Your task to perform on an android device: Show me popular videos on Youtube Image 0: 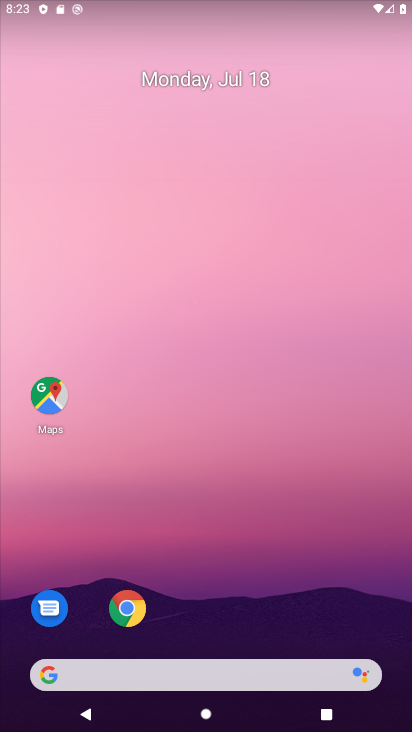
Step 0: drag from (208, 628) to (205, 144)
Your task to perform on an android device: Show me popular videos on Youtube Image 1: 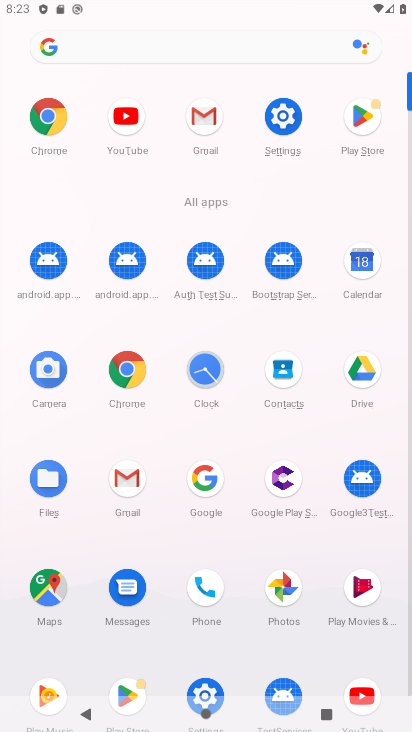
Step 1: click (367, 683)
Your task to perform on an android device: Show me popular videos on Youtube Image 2: 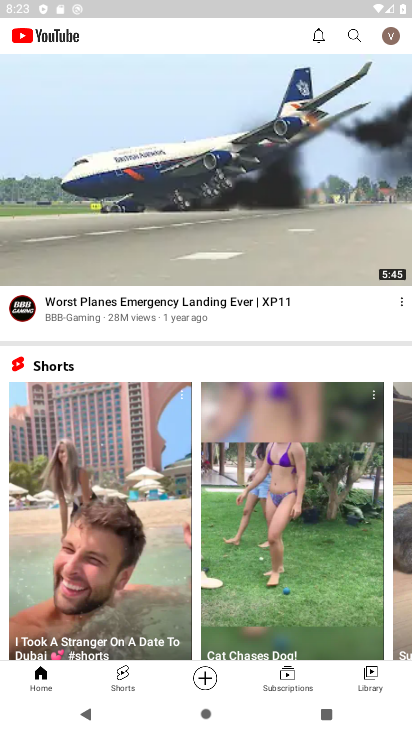
Step 2: drag from (63, 157) to (69, 562)
Your task to perform on an android device: Show me popular videos on Youtube Image 3: 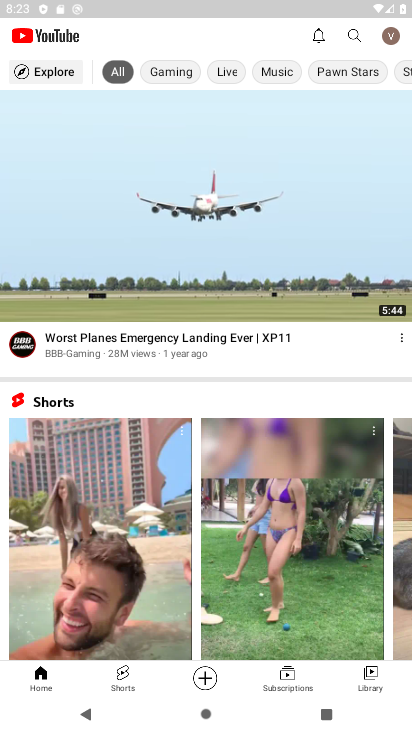
Step 3: click (43, 69)
Your task to perform on an android device: Show me popular videos on Youtube Image 4: 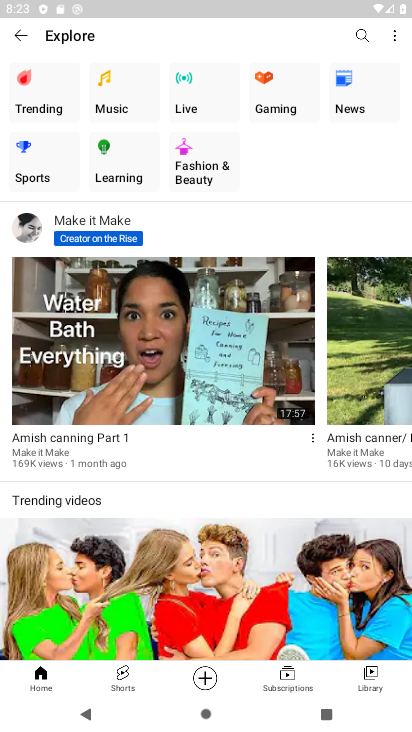
Step 4: click (46, 87)
Your task to perform on an android device: Show me popular videos on Youtube Image 5: 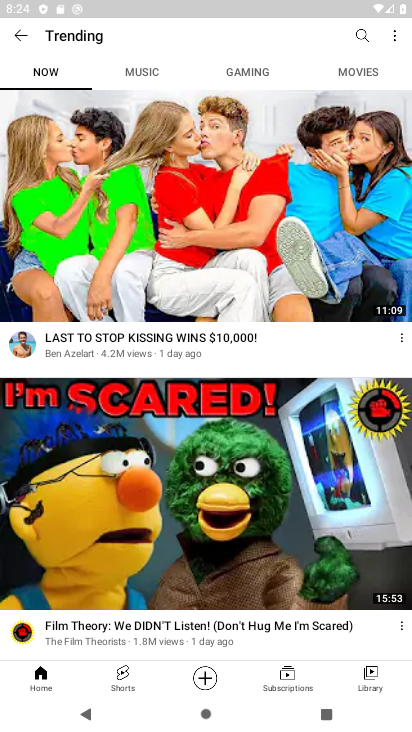
Step 5: task complete